Your task to perform on an android device: Search for "usb-b" on bestbuy, select the first entry, add it to the cart, then select checkout. Image 0: 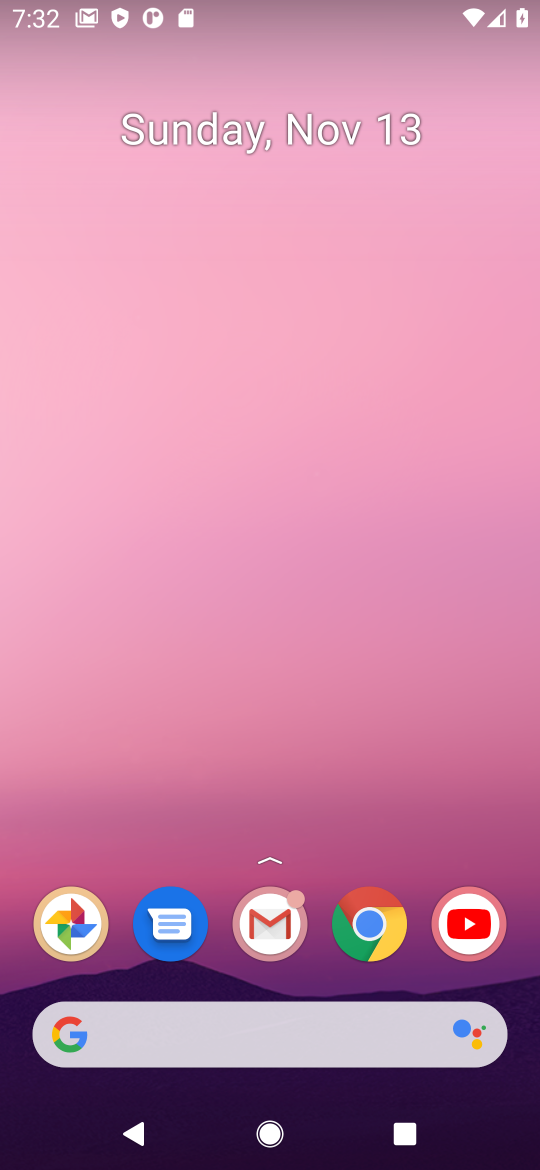
Step 0: click (371, 925)
Your task to perform on an android device: Search for "usb-b" on bestbuy, select the first entry, add it to the cart, then select checkout. Image 1: 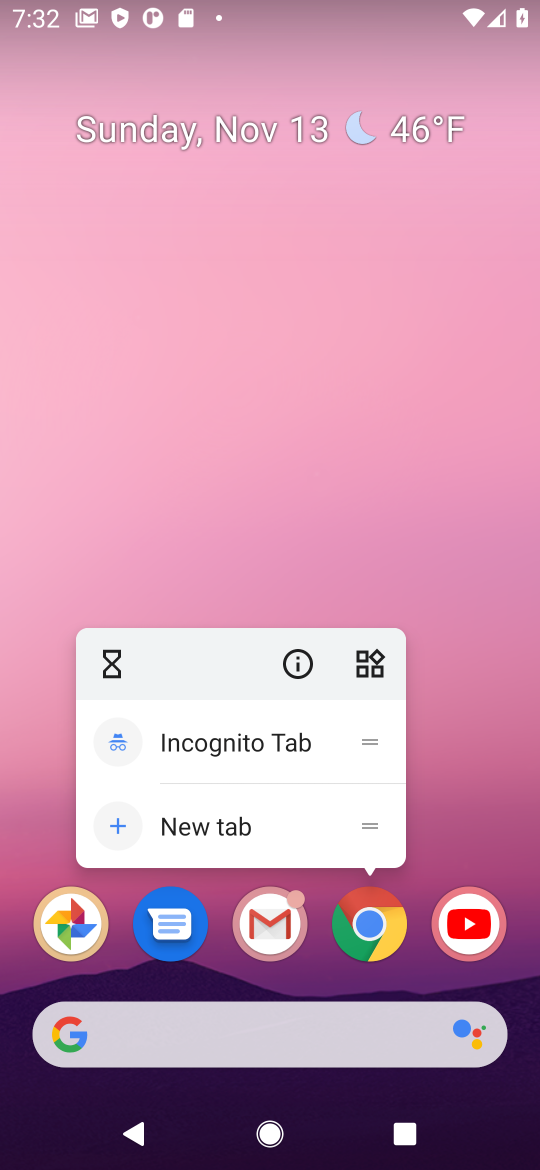
Step 1: click (371, 930)
Your task to perform on an android device: Search for "usb-b" on bestbuy, select the first entry, add it to the cart, then select checkout. Image 2: 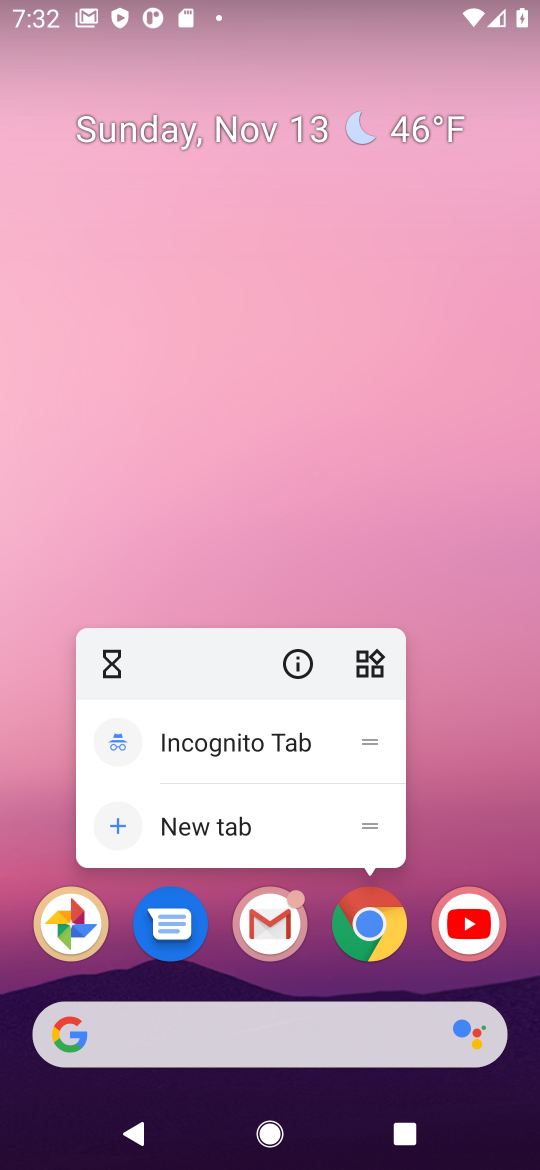
Step 2: click (371, 935)
Your task to perform on an android device: Search for "usb-b" on bestbuy, select the first entry, add it to the cart, then select checkout. Image 3: 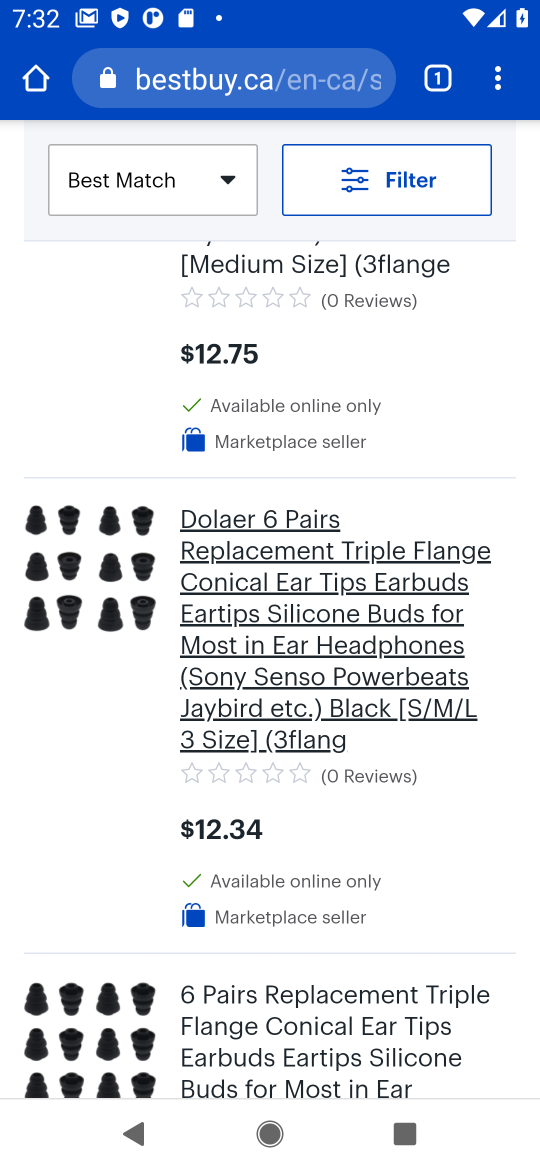
Step 3: drag from (323, 341) to (285, 1012)
Your task to perform on an android device: Search for "usb-b" on bestbuy, select the first entry, add it to the cart, then select checkout. Image 4: 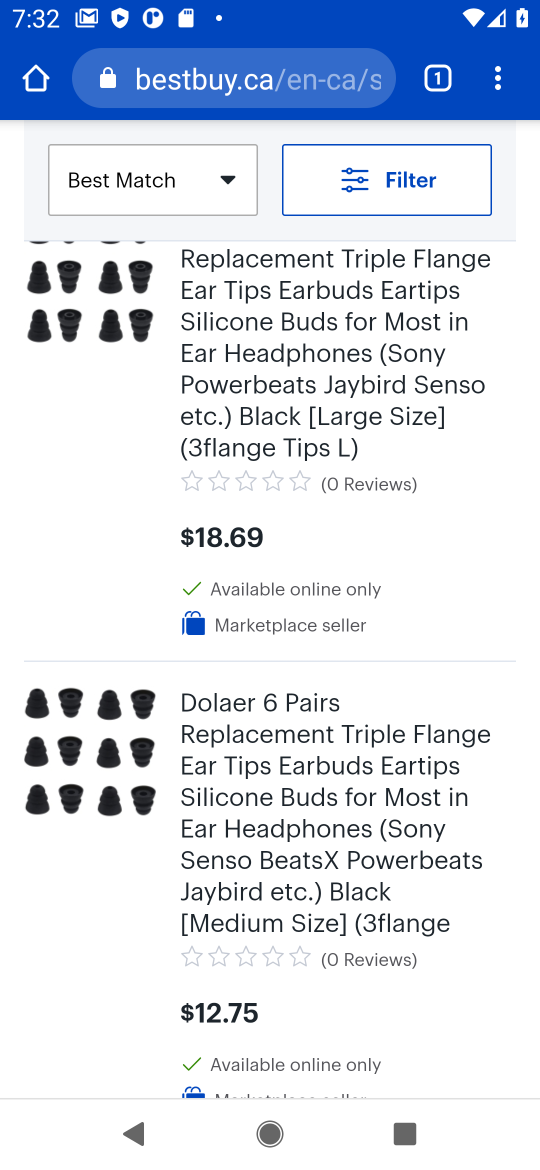
Step 4: drag from (386, 328) to (336, 1056)
Your task to perform on an android device: Search for "usb-b" on bestbuy, select the first entry, add it to the cart, then select checkout. Image 5: 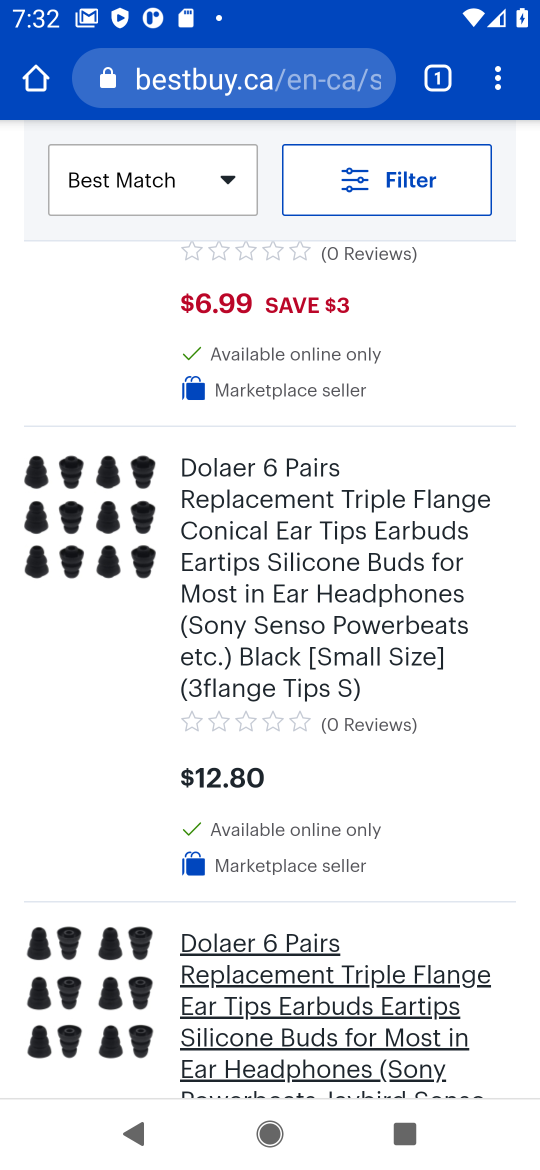
Step 5: drag from (406, 411) to (317, 1098)
Your task to perform on an android device: Search for "usb-b" on bestbuy, select the first entry, add it to the cart, then select checkout. Image 6: 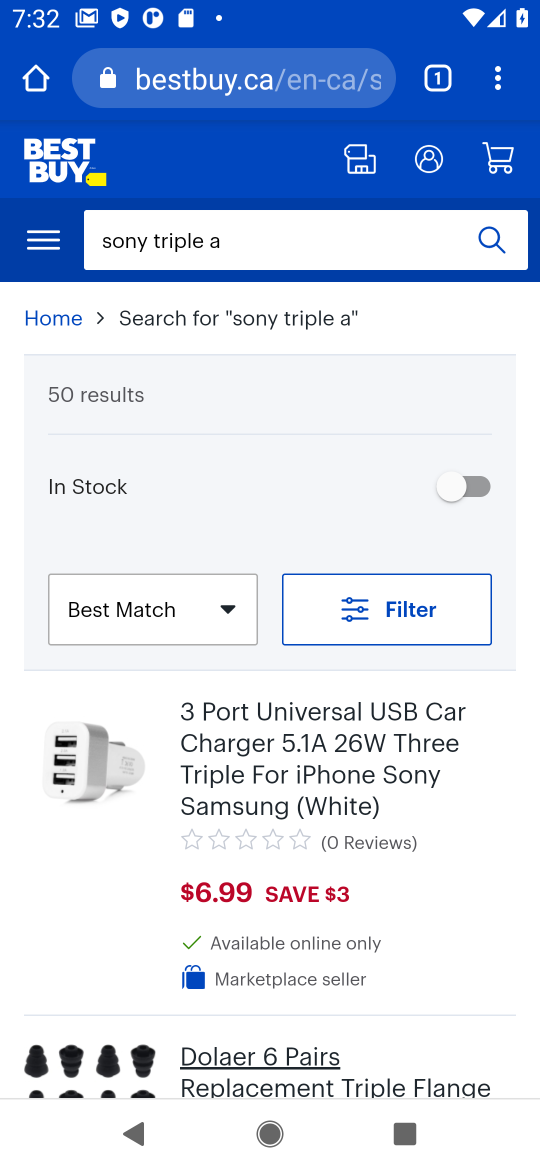
Step 6: click (336, 236)
Your task to perform on an android device: Search for "usb-b" on bestbuy, select the first entry, add it to the cart, then select checkout. Image 7: 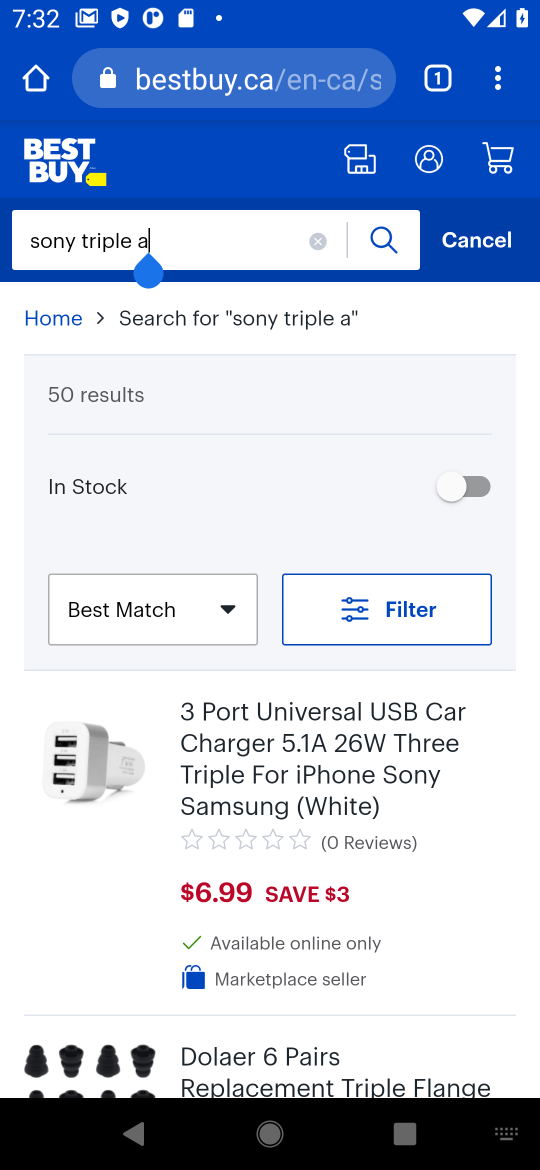
Step 7: click (312, 243)
Your task to perform on an android device: Search for "usb-b" on bestbuy, select the first entry, add it to the cart, then select checkout. Image 8: 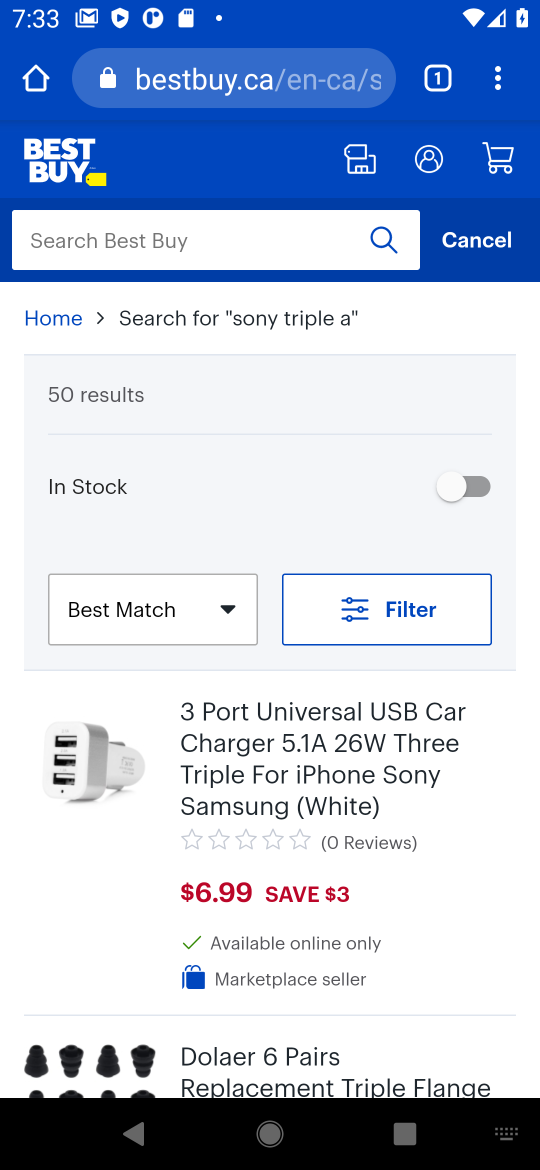
Step 8: type "usb-b"
Your task to perform on an android device: Search for "usb-b" on bestbuy, select the first entry, add it to the cart, then select checkout. Image 9: 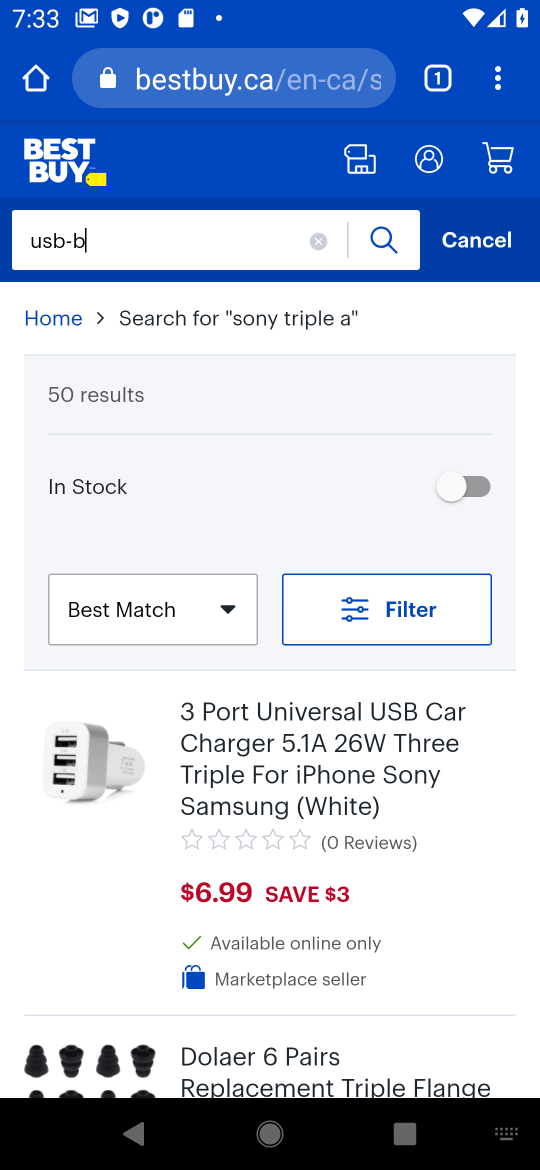
Step 9: press enter
Your task to perform on an android device: Search for "usb-b" on bestbuy, select the first entry, add it to the cart, then select checkout. Image 10: 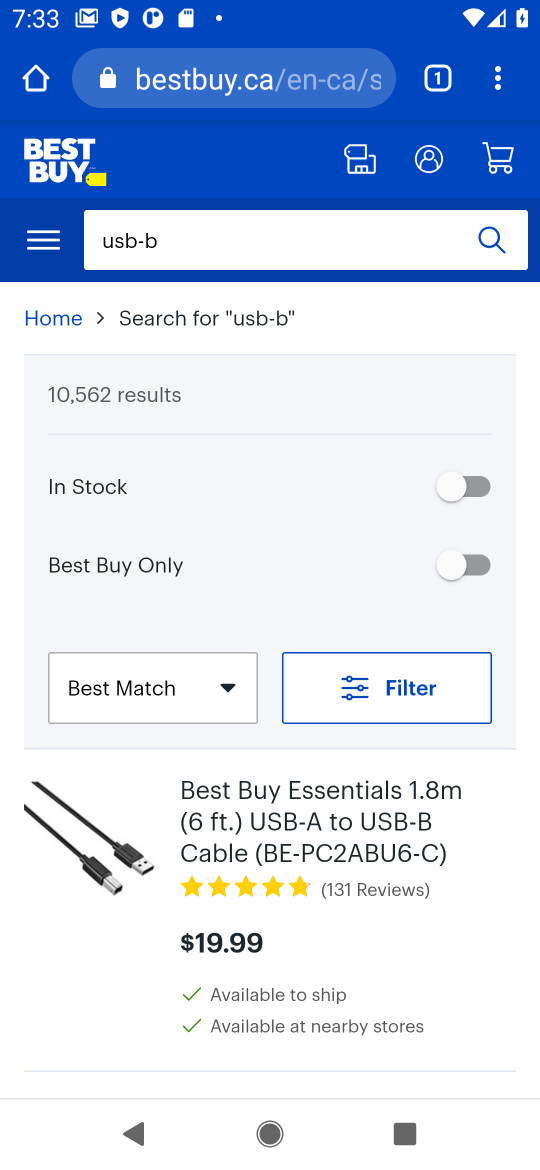
Step 10: task complete